Your task to perform on an android device: Open wifi settings Image 0: 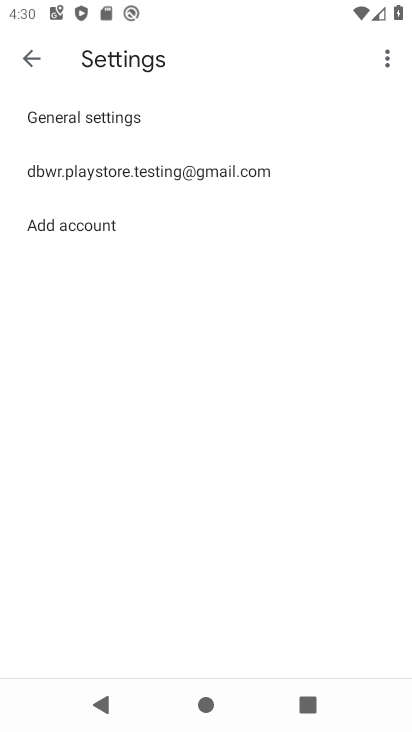
Step 0: click (100, 176)
Your task to perform on an android device: Open wifi settings Image 1: 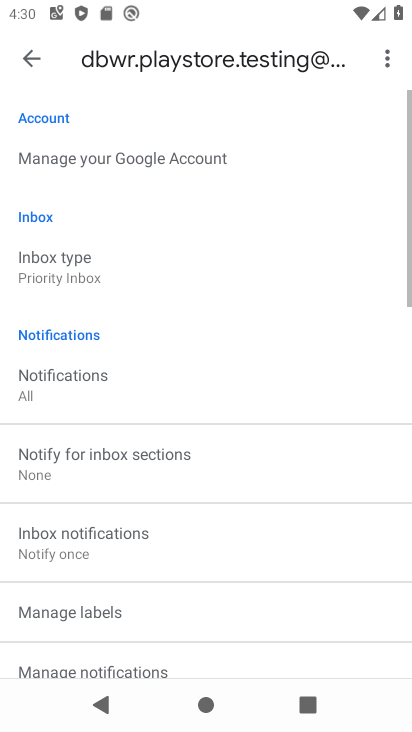
Step 1: press home button
Your task to perform on an android device: Open wifi settings Image 2: 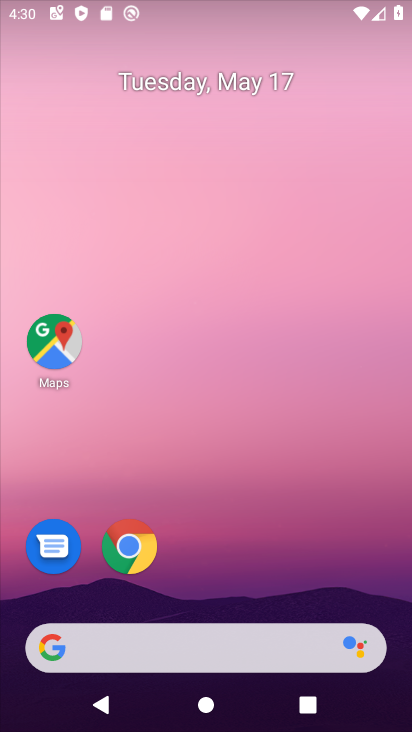
Step 2: drag from (202, 583) to (211, 179)
Your task to perform on an android device: Open wifi settings Image 3: 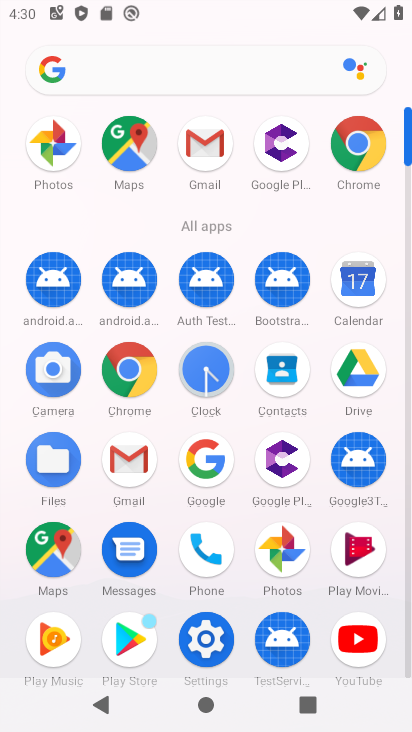
Step 3: click (210, 652)
Your task to perform on an android device: Open wifi settings Image 4: 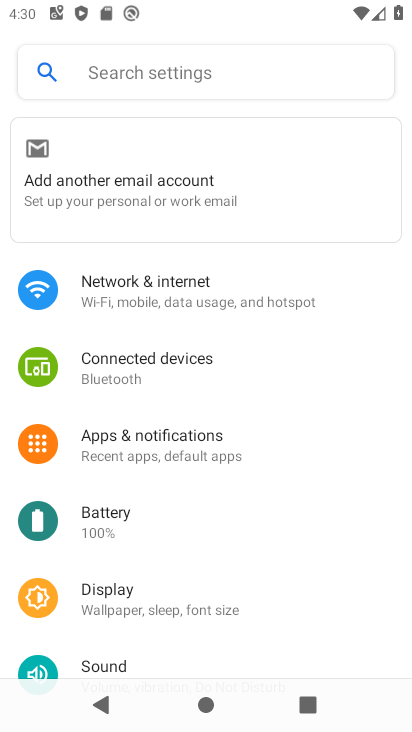
Step 4: click (135, 315)
Your task to perform on an android device: Open wifi settings Image 5: 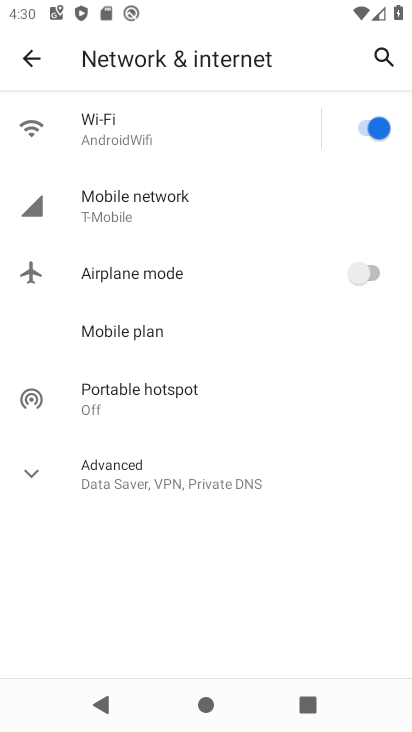
Step 5: click (187, 146)
Your task to perform on an android device: Open wifi settings Image 6: 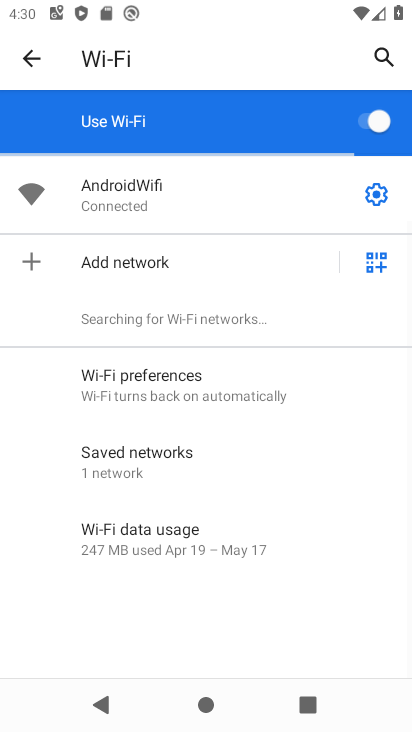
Step 6: task complete